Your task to perform on an android device: remove spam from my inbox in the gmail app Image 0: 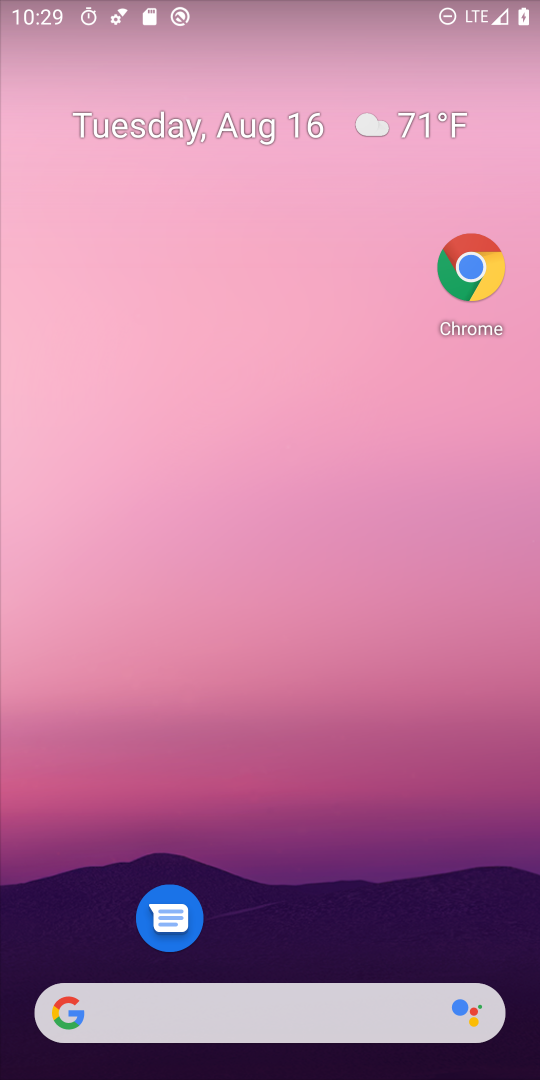
Step 0: drag from (352, 889) to (396, 46)
Your task to perform on an android device: remove spam from my inbox in the gmail app Image 1: 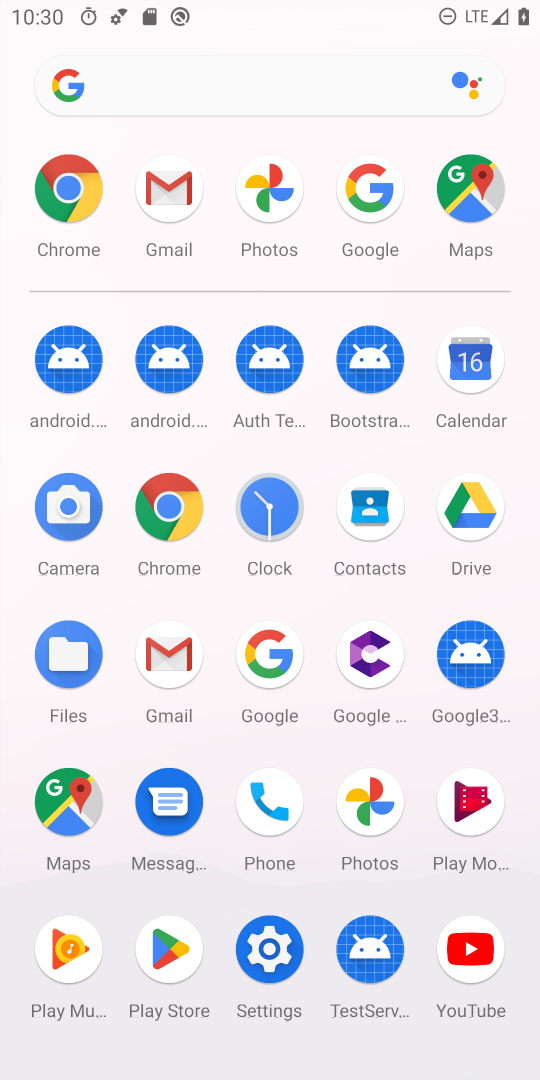
Step 1: click (177, 200)
Your task to perform on an android device: remove spam from my inbox in the gmail app Image 2: 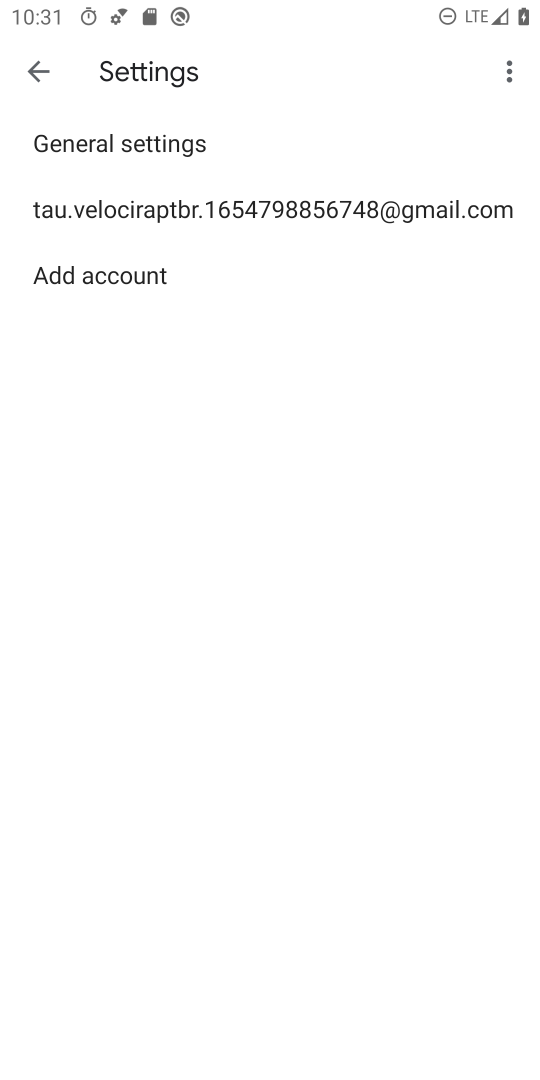
Step 2: click (259, 219)
Your task to perform on an android device: remove spam from my inbox in the gmail app Image 3: 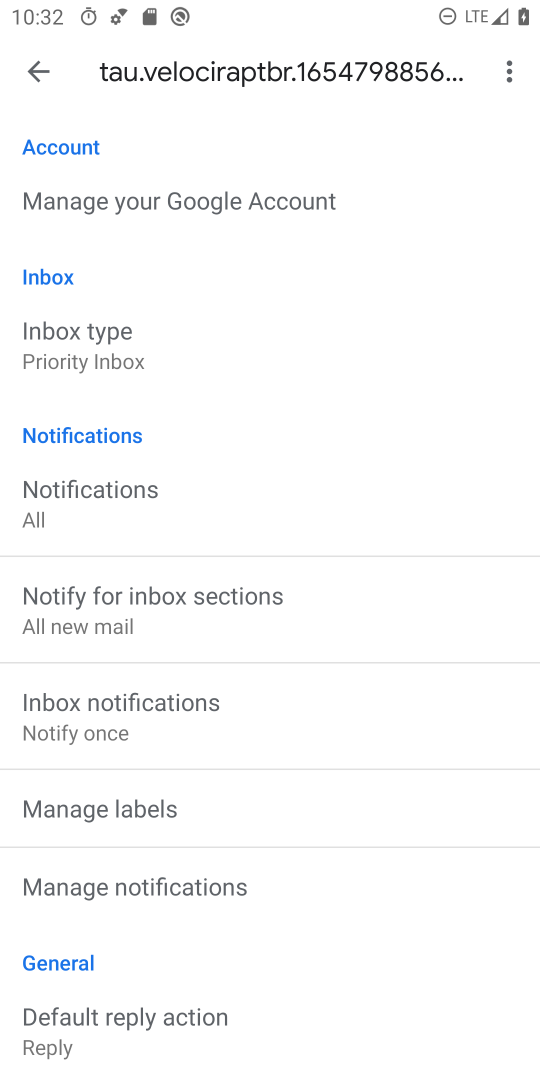
Step 3: click (103, 377)
Your task to perform on an android device: remove spam from my inbox in the gmail app Image 4: 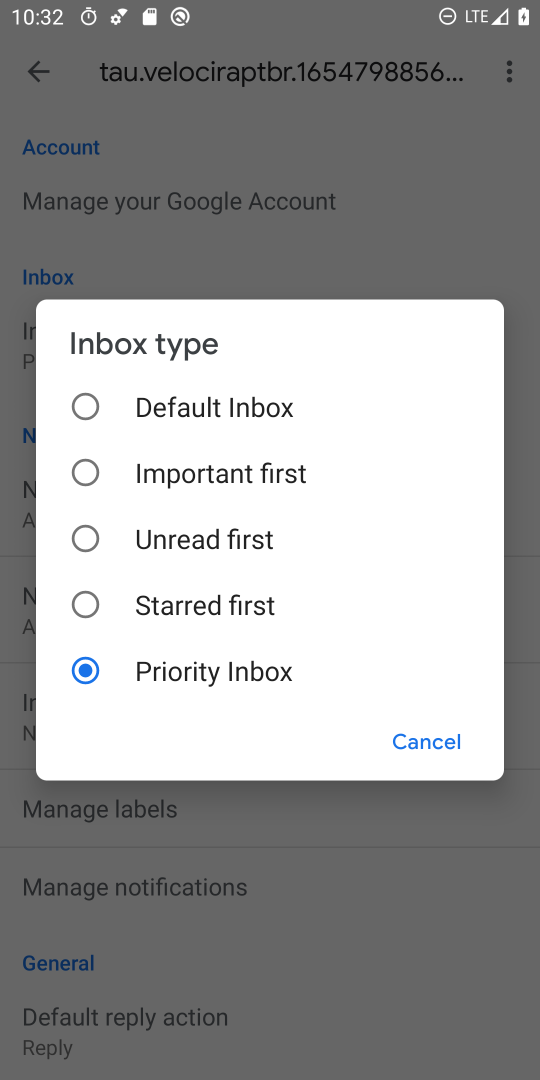
Step 4: task complete